Your task to perform on an android device: open wifi settings Image 0: 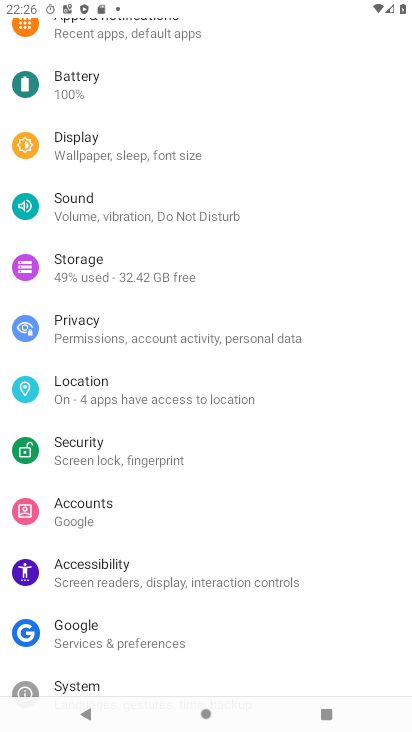
Step 0: drag from (198, 221) to (181, 630)
Your task to perform on an android device: open wifi settings Image 1: 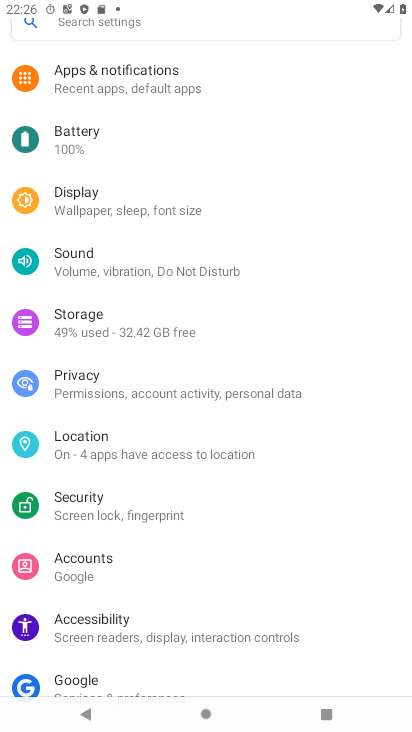
Step 1: drag from (140, 221) to (305, 596)
Your task to perform on an android device: open wifi settings Image 2: 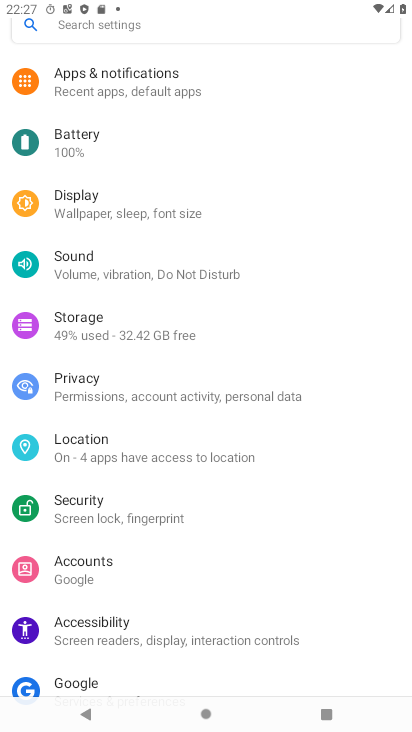
Step 2: drag from (142, 247) to (139, 571)
Your task to perform on an android device: open wifi settings Image 3: 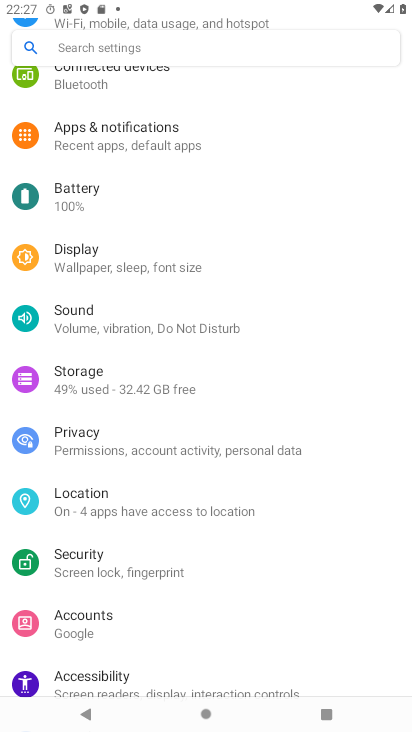
Step 3: drag from (275, 490) to (266, 678)
Your task to perform on an android device: open wifi settings Image 4: 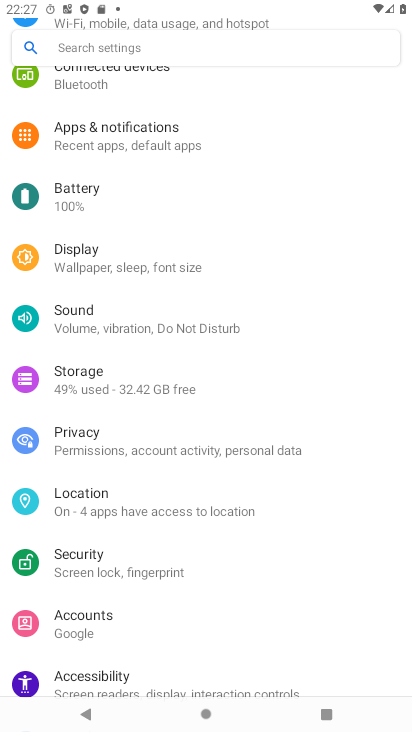
Step 4: drag from (220, 293) to (194, 650)
Your task to perform on an android device: open wifi settings Image 5: 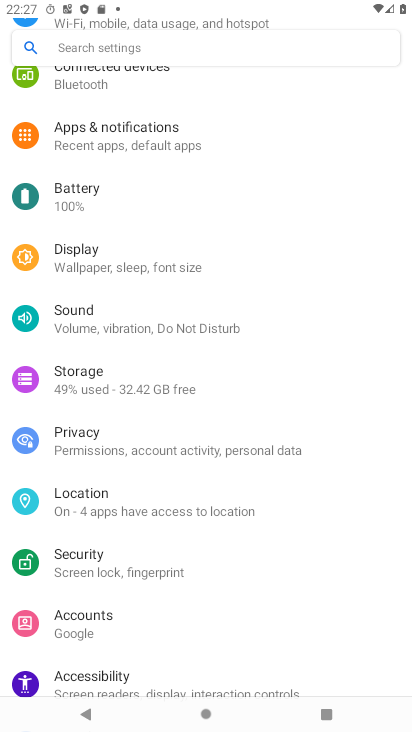
Step 5: drag from (176, 94) to (167, 559)
Your task to perform on an android device: open wifi settings Image 6: 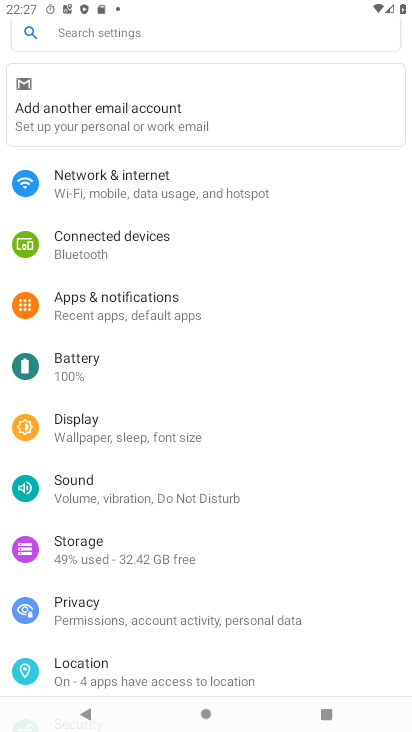
Step 6: click (227, 191)
Your task to perform on an android device: open wifi settings Image 7: 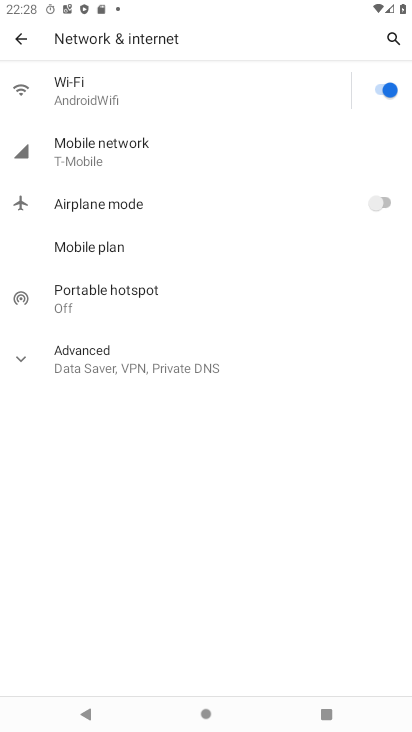
Step 7: click (243, 98)
Your task to perform on an android device: open wifi settings Image 8: 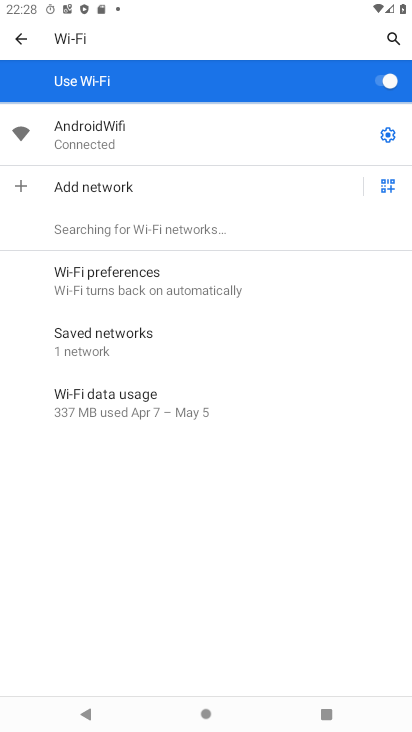
Step 8: task complete